Your task to perform on an android device: Is it going to rain today? Image 0: 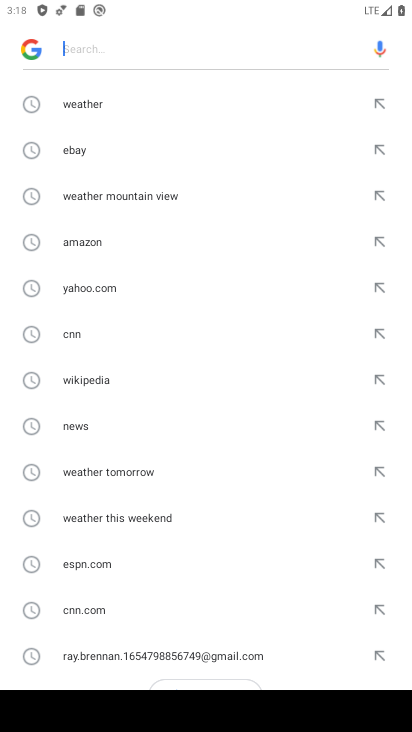
Step 0: press home button
Your task to perform on an android device: Is it going to rain today? Image 1: 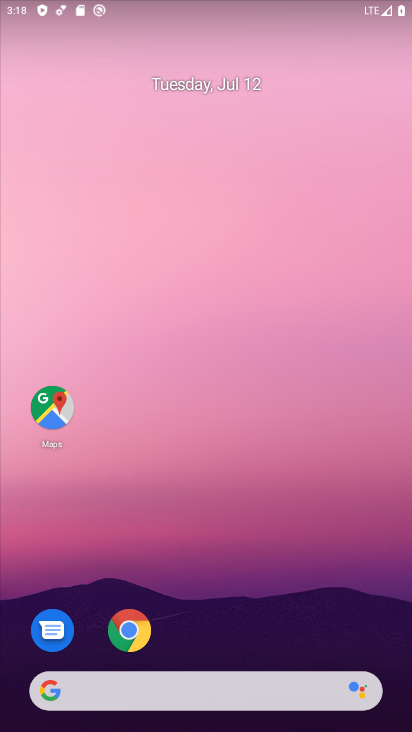
Step 1: click (148, 691)
Your task to perform on an android device: Is it going to rain today? Image 2: 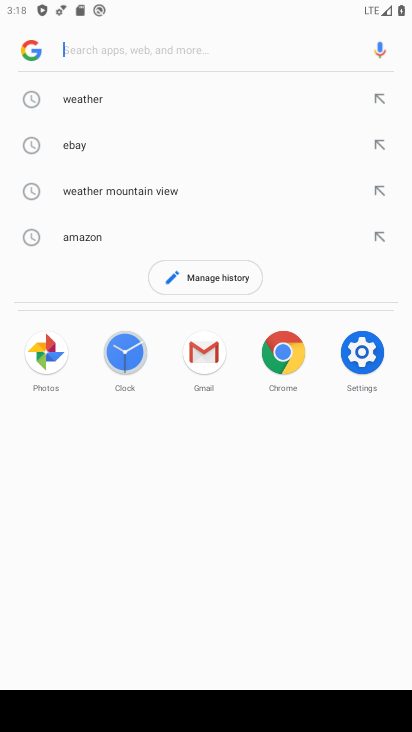
Step 2: click (96, 102)
Your task to perform on an android device: Is it going to rain today? Image 3: 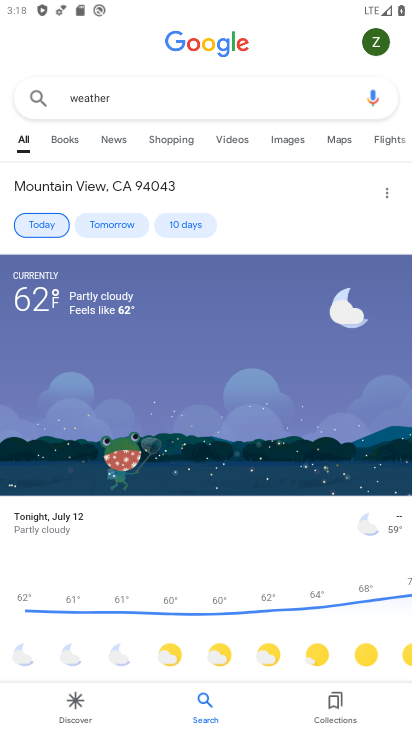
Step 3: task complete